Your task to perform on an android device: uninstall "Pluto TV - Live TV and Movies" Image 0: 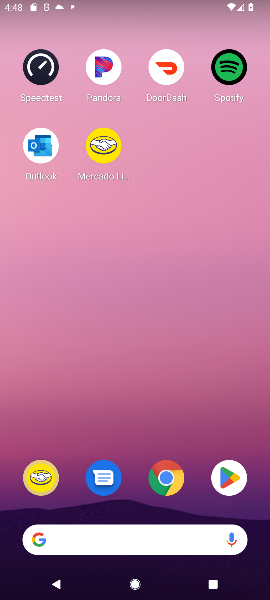
Step 0: click (233, 466)
Your task to perform on an android device: uninstall "Pluto TV - Live TV and Movies" Image 1: 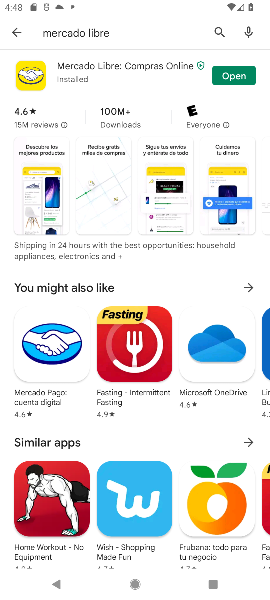
Step 1: click (217, 31)
Your task to perform on an android device: uninstall "Pluto TV - Live TV and Movies" Image 2: 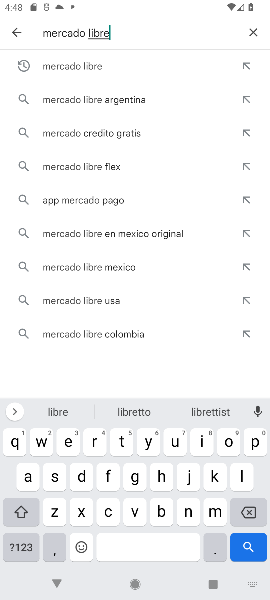
Step 2: click (250, 33)
Your task to perform on an android device: uninstall "Pluto TV - Live TV and Movies" Image 3: 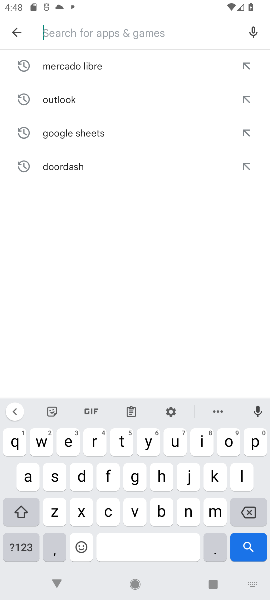
Step 3: click (256, 442)
Your task to perform on an android device: uninstall "Pluto TV - Live TV and Movies" Image 4: 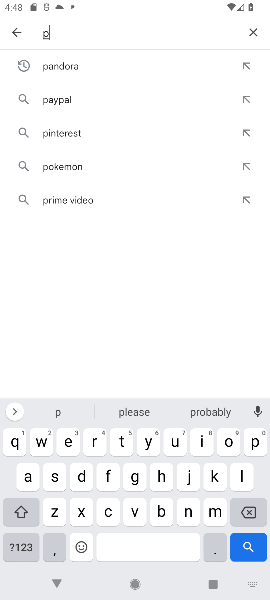
Step 4: click (244, 476)
Your task to perform on an android device: uninstall "Pluto TV - Live TV and Movies" Image 5: 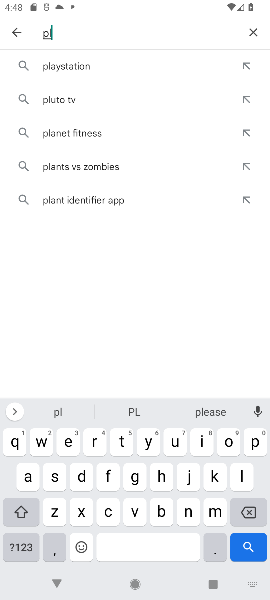
Step 5: click (171, 439)
Your task to perform on an android device: uninstall "Pluto TV - Live TV and Movies" Image 6: 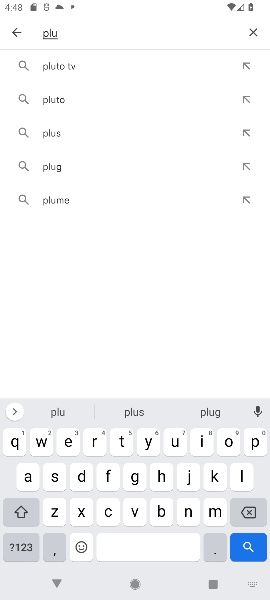
Step 6: click (75, 67)
Your task to perform on an android device: uninstall "Pluto TV - Live TV and Movies" Image 7: 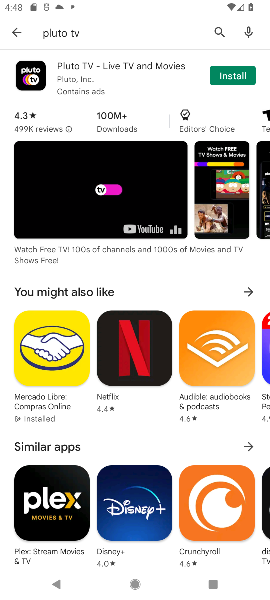
Step 7: click (22, 73)
Your task to perform on an android device: uninstall "Pluto TV - Live TV and Movies" Image 8: 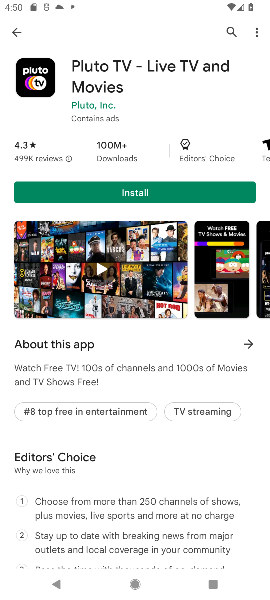
Step 8: task complete